Your task to perform on an android device: toggle show notifications on the lock screen Image 0: 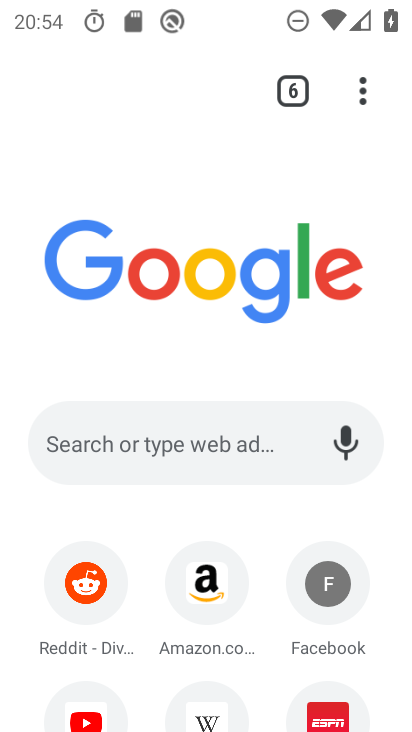
Step 0: press home button
Your task to perform on an android device: toggle show notifications on the lock screen Image 1: 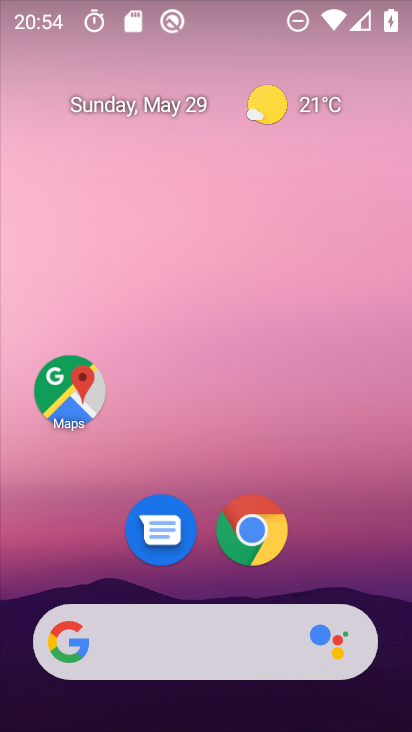
Step 1: drag from (224, 673) to (365, 71)
Your task to perform on an android device: toggle show notifications on the lock screen Image 2: 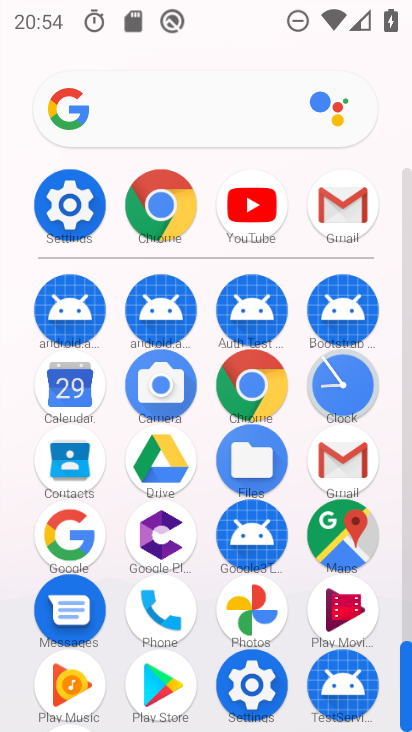
Step 2: click (50, 223)
Your task to perform on an android device: toggle show notifications on the lock screen Image 3: 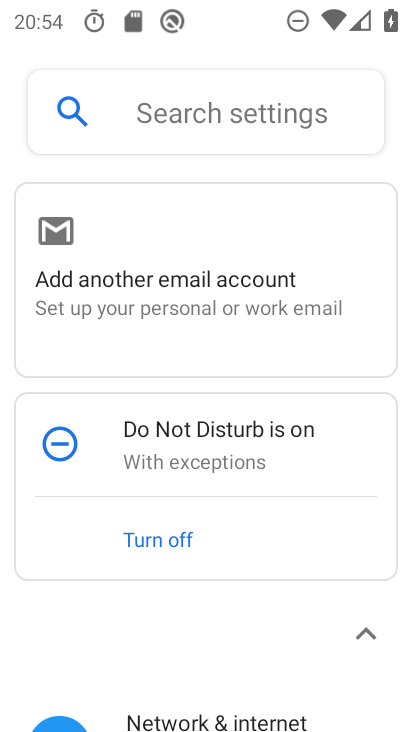
Step 3: click (215, 113)
Your task to perform on an android device: toggle show notifications on the lock screen Image 4: 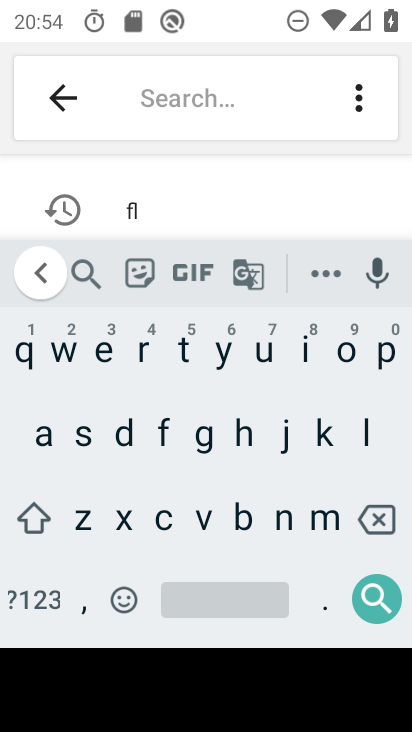
Step 4: click (352, 429)
Your task to perform on an android device: toggle show notifications on the lock screen Image 5: 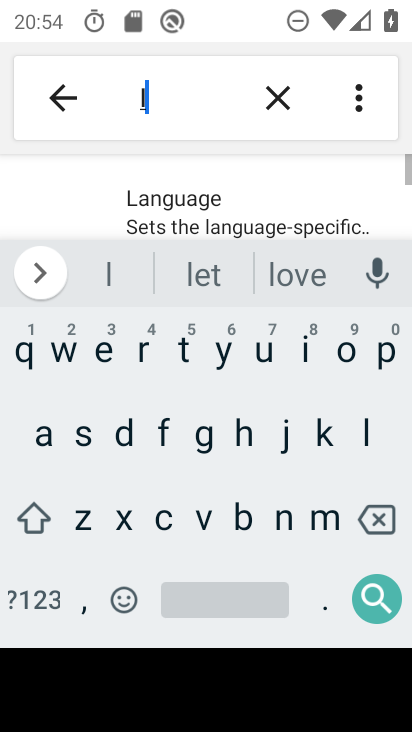
Step 5: click (343, 375)
Your task to perform on an android device: toggle show notifications on the lock screen Image 6: 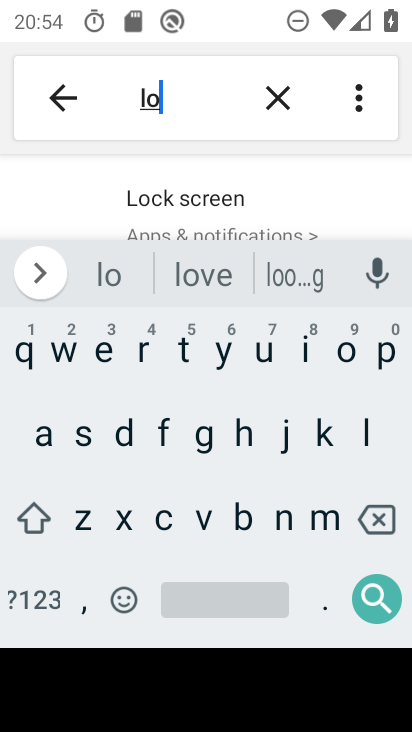
Step 6: press back button
Your task to perform on an android device: toggle show notifications on the lock screen Image 7: 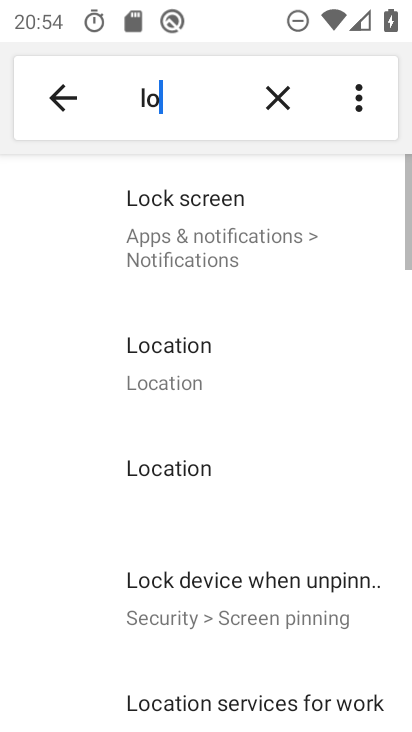
Step 7: click (153, 340)
Your task to perform on an android device: toggle show notifications on the lock screen Image 8: 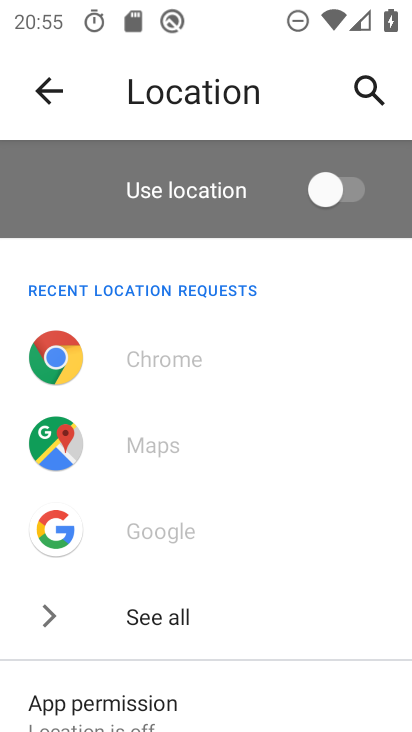
Step 8: drag from (138, 651) to (211, 478)
Your task to perform on an android device: toggle show notifications on the lock screen Image 9: 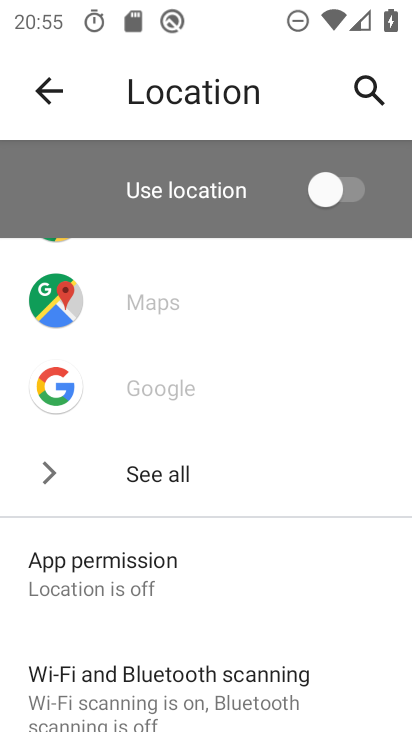
Step 9: press home button
Your task to perform on an android device: toggle show notifications on the lock screen Image 10: 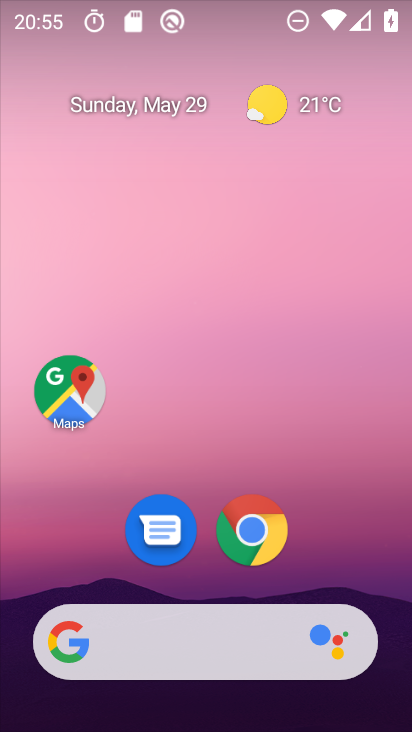
Step 10: drag from (191, 620) to (350, 133)
Your task to perform on an android device: toggle show notifications on the lock screen Image 11: 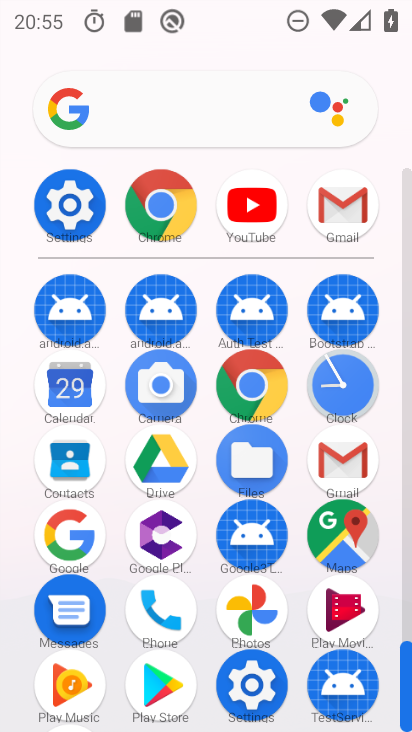
Step 11: click (262, 678)
Your task to perform on an android device: toggle show notifications on the lock screen Image 12: 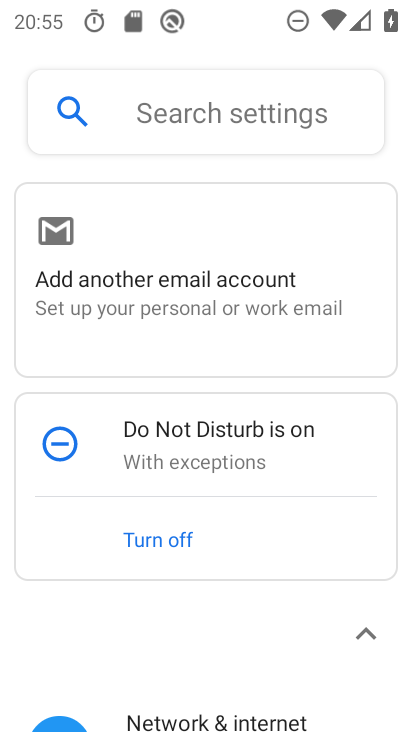
Step 12: click (183, 127)
Your task to perform on an android device: toggle show notifications on the lock screen Image 13: 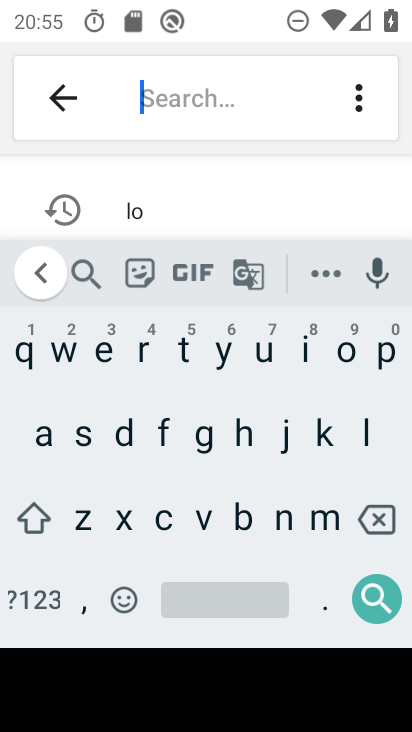
Step 13: click (277, 519)
Your task to perform on an android device: toggle show notifications on the lock screen Image 14: 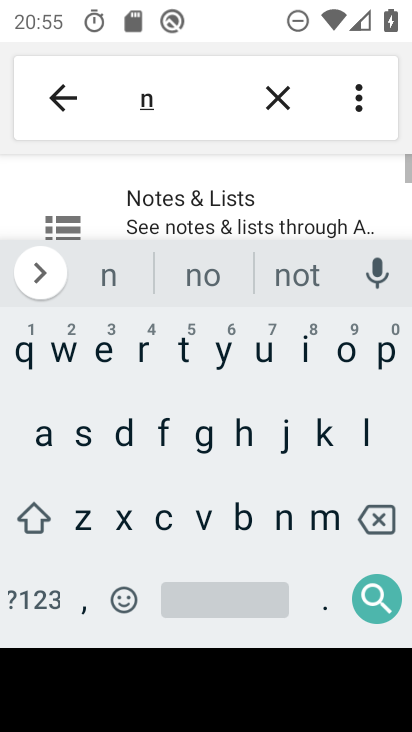
Step 14: click (345, 359)
Your task to perform on an android device: toggle show notifications on the lock screen Image 15: 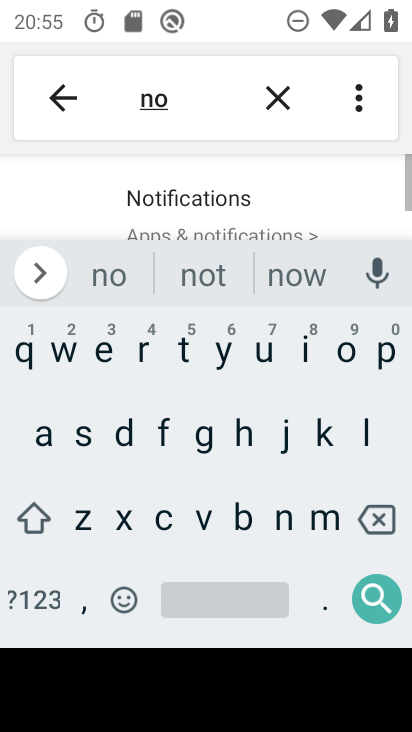
Step 15: press back button
Your task to perform on an android device: toggle show notifications on the lock screen Image 16: 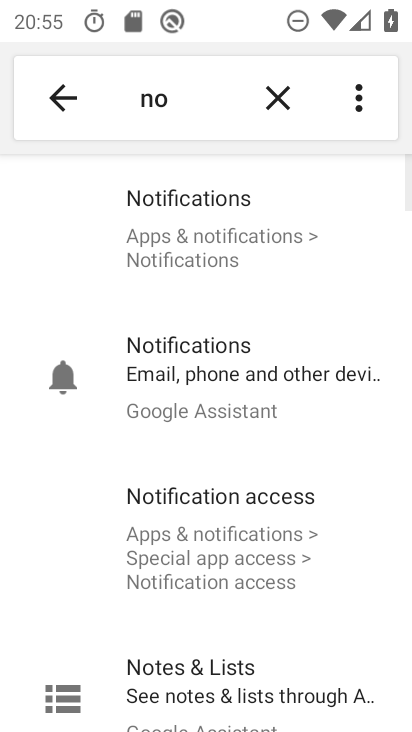
Step 16: click (201, 261)
Your task to perform on an android device: toggle show notifications on the lock screen Image 17: 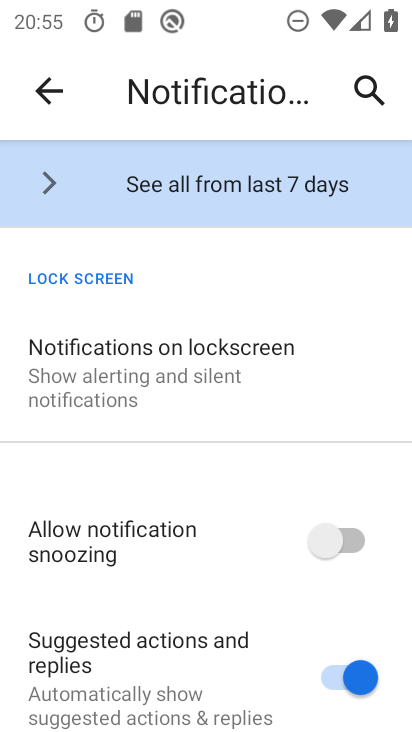
Step 17: click (159, 383)
Your task to perform on an android device: toggle show notifications on the lock screen Image 18: 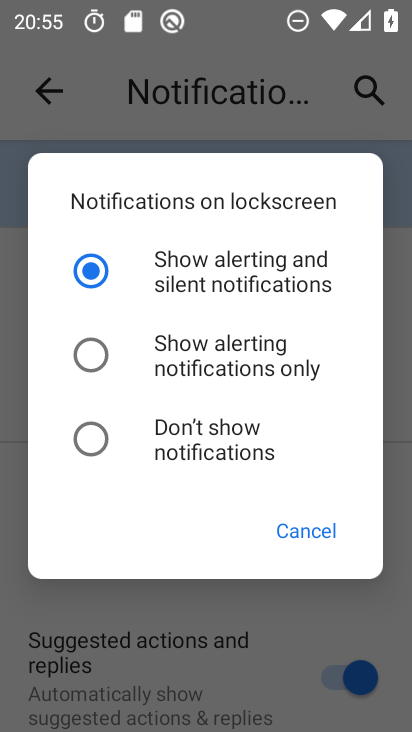
Step 18: task complete